Your task to perform on an android device: change text size in settings app Image 0: 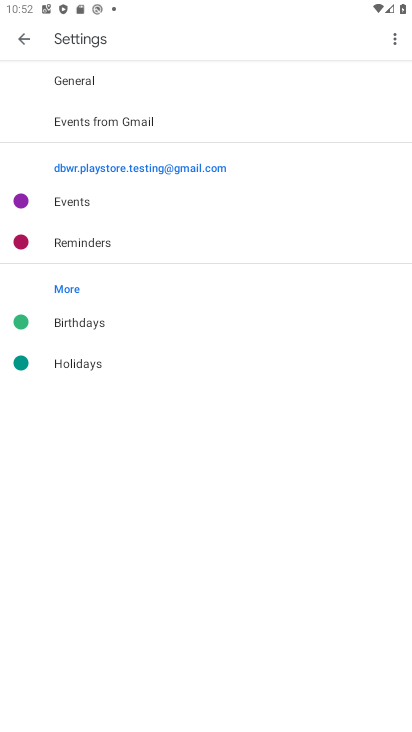
Step 0: press home button
Your task to perform on an android device: change text size in settings app Image 1: 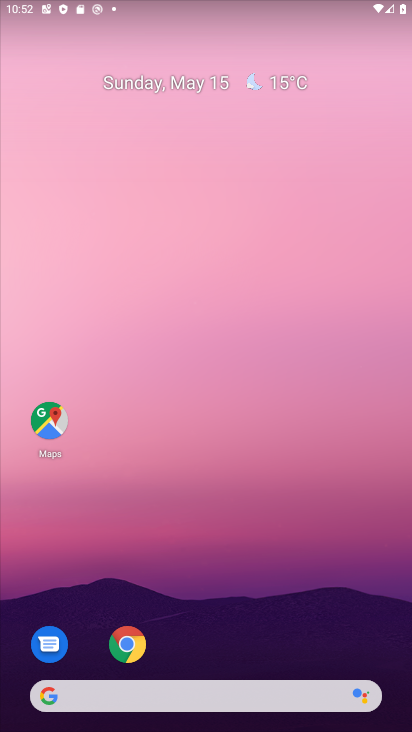
Step 1: drag from (209, 658) to (300, 186)
Your task to perform on an android device: change text size in settings app Image 2: 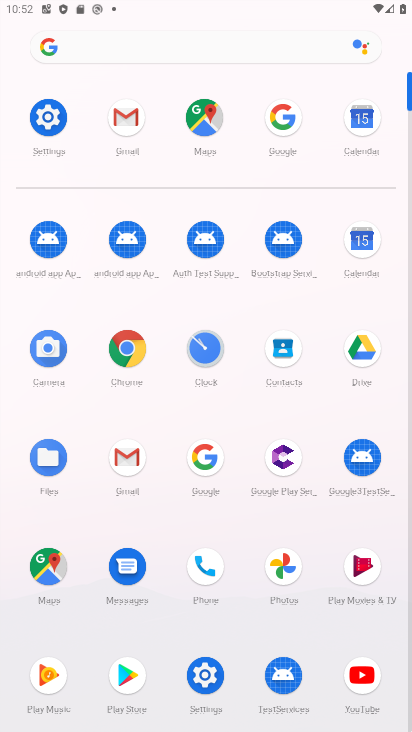
Step 2: click (38, 106)
Your task to perform on an android device: change text size in settings app Image 3: 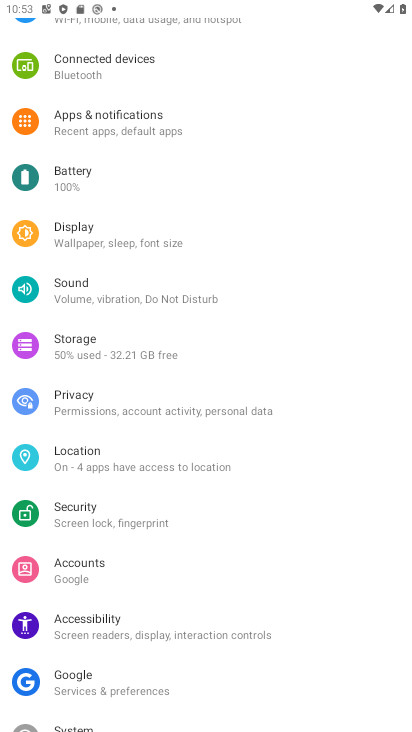
Step 3: click (115, 628)
Your task to perform on an android device: change text size in settings app Image 4: 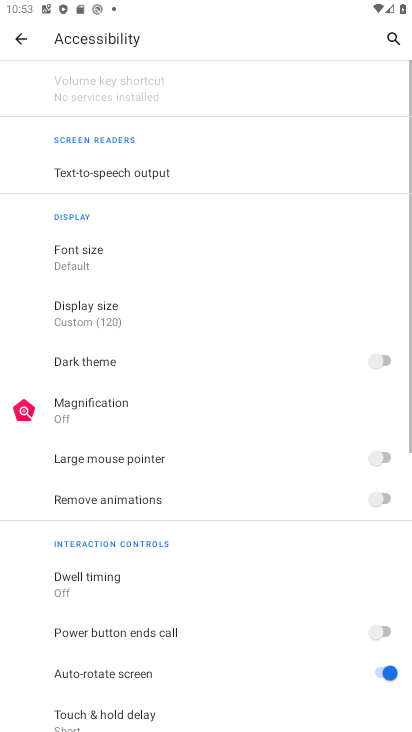
Step 4: click (83, 264)
Your task to perform on an android device: change text size in settings app Image 5: 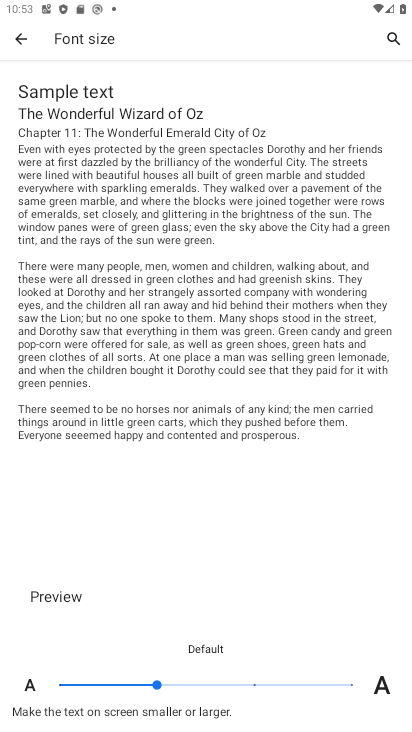
Step 5: click (252, 685)
Your task to perform on an android device: change text size in settings app Image 6: 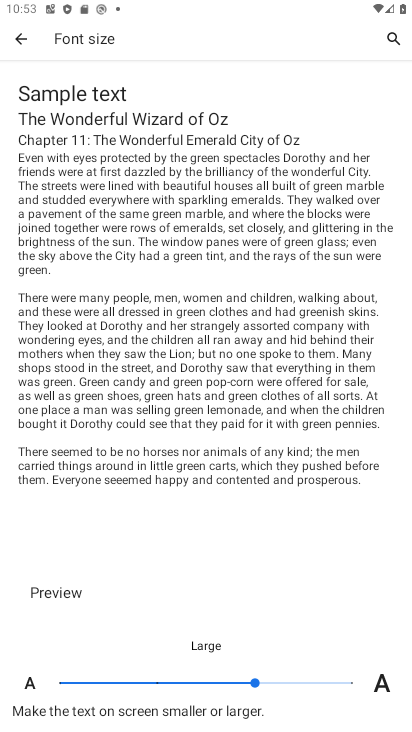
Step 6: task complete